Your task to perform on an android device: turn on wifi Image 0: 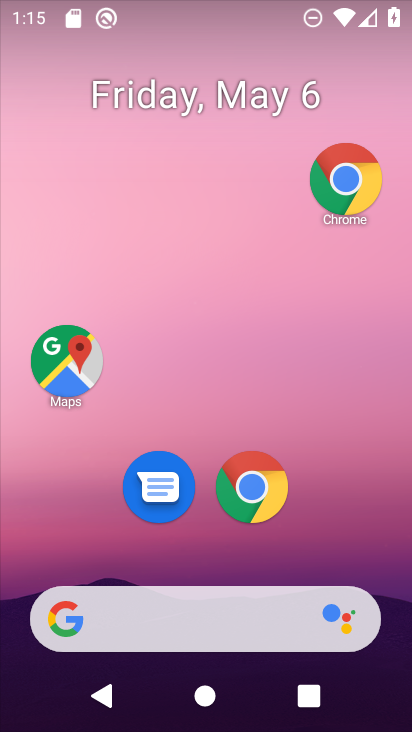
Step 0: drag from (360, 501) to (327, 80)
Your task to perform on an android device: turn on wifi Image 1: 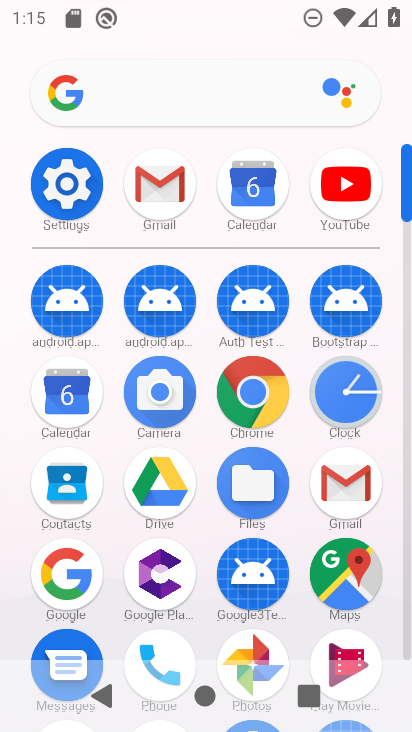
Step 1: click (79, 209)
Your task to perform on an android device: turn on wifi Image 2: 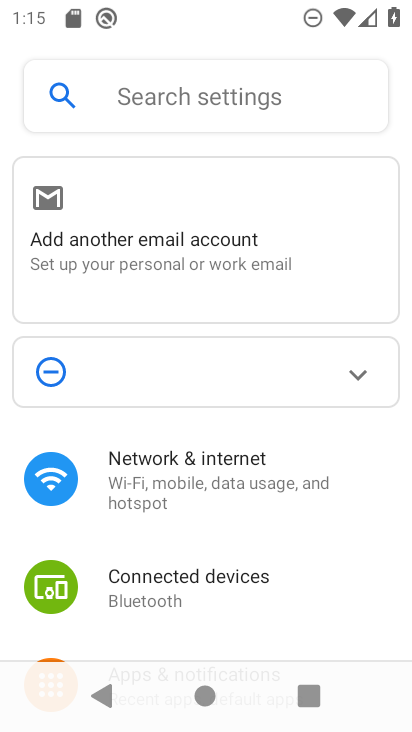
Step 2: click (223, 457)
Your task to perform on an android device: turn on wifi Image 3: 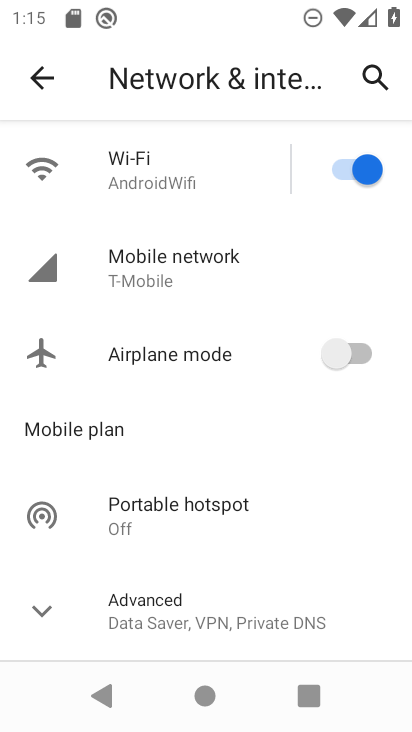
Step 3: task complete